Your task to perform on an android device: Open display settings Image 0: 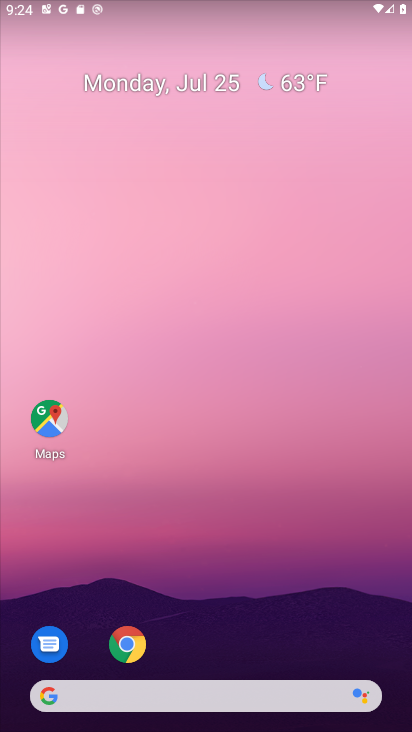
Step 0: drag from (273, 706) to (208, 199)
Your task to perform on an android device: Open display settings Image 1: 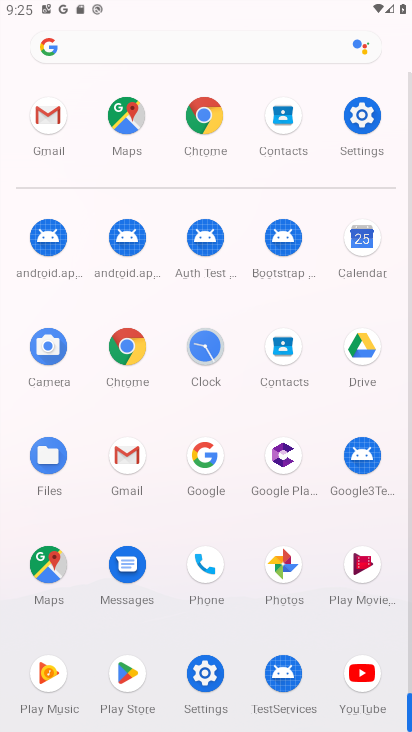
Step 1: click (343, 116)
Your task to perform on an android device: Open display settings Image 2: 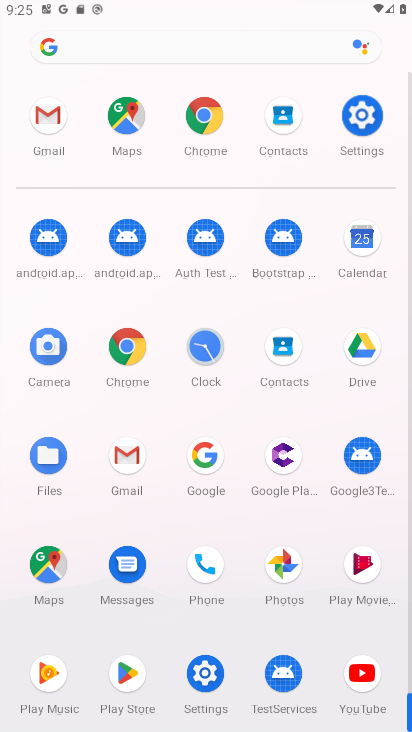
Step 2: click (378, 124)
Your task to perform on an android device: Open display settings Image 3: 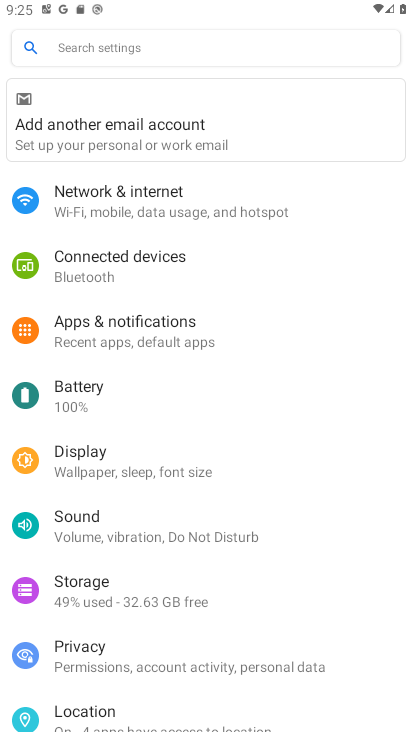
Step 3: click (88, 456)
Your task to perform on an android device: Open display settings Image 4: 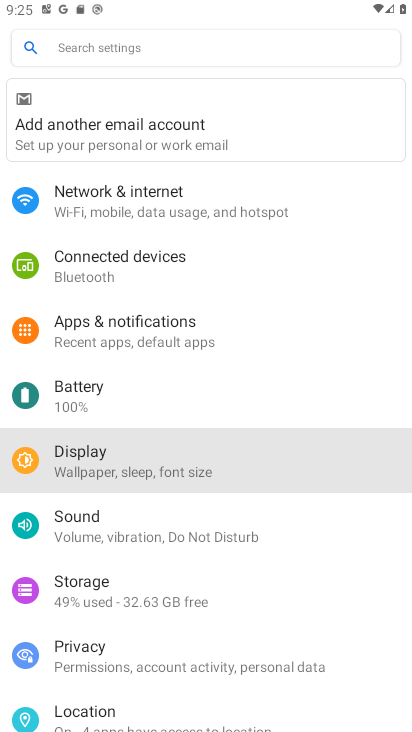
Step 4: click (101, 451)
Your task to perform on an android device: Open display settings Image 5: 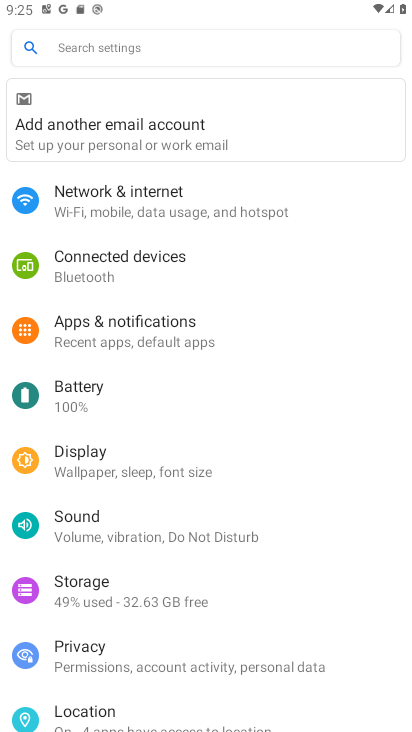
Step 5: click (101, 450)
Your task to perform on an android device: Open display settings Image 6: 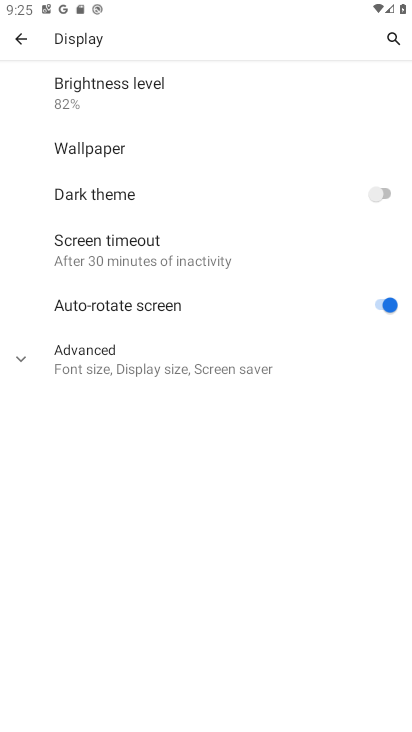
Step 6: click (111, 459)
Your task to perform on an android device: Open display settings Image 7: 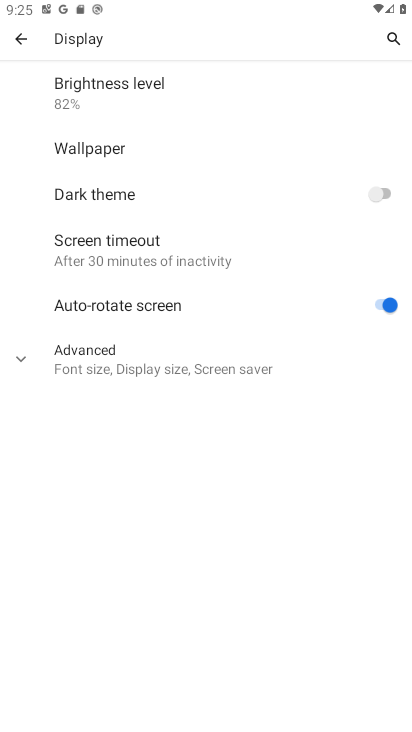
Step 7: click (111, 459)
Your task to perform on an android device: Open display settings Image 8: 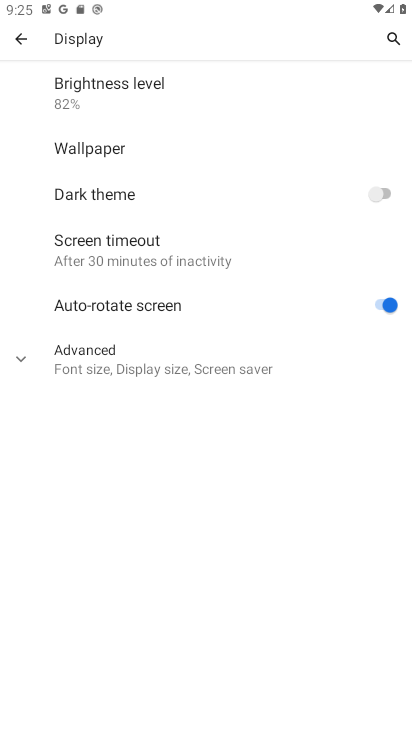
Step 8: task complete